Your task to perform on an android device: turn on priority inbox in the gmail app Image 0: 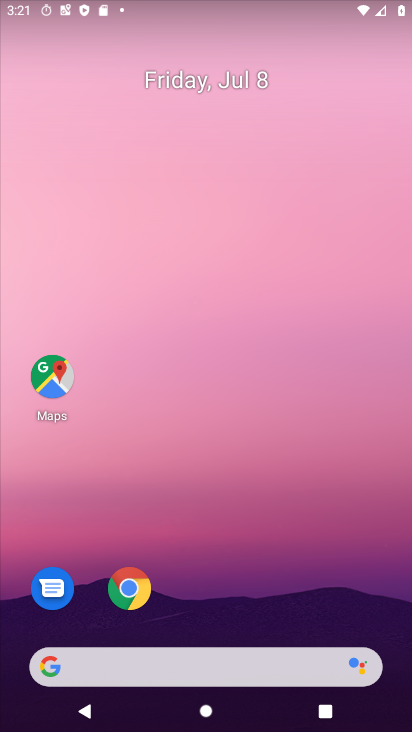
Step 0: press home button
Your task to perform on an android device: turn on priority inbox in the gmail app Image 1: 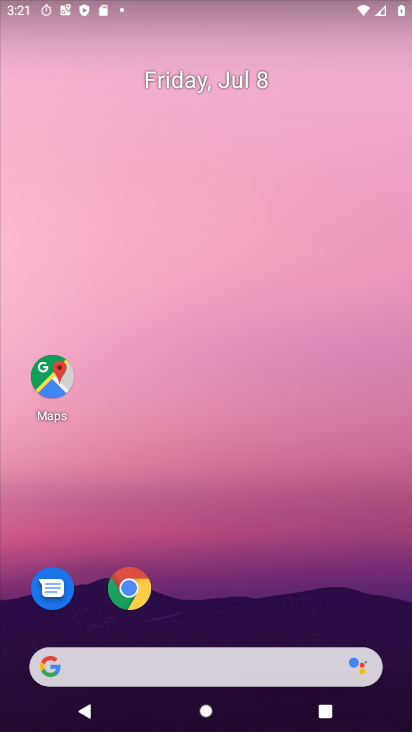
Step 1: drag from (210, 597) to (199, 66)
Your task to perform on an android device: turn on priority inbox in the gmail app Image 2: 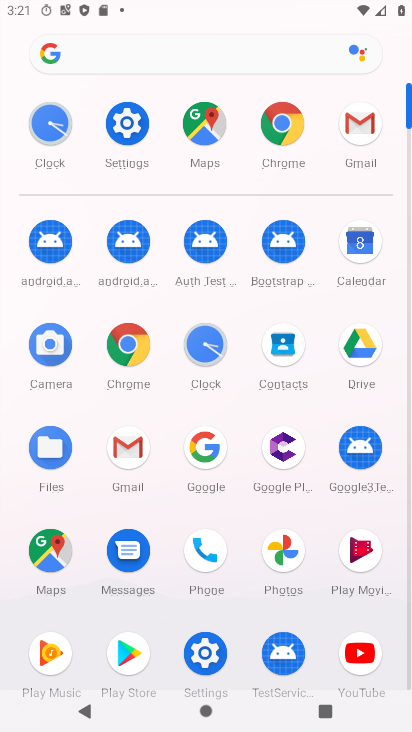
Step 2: click (360, 133)
Your task to perform on an android device: turn on priority inbox in the gmail app Image 3: 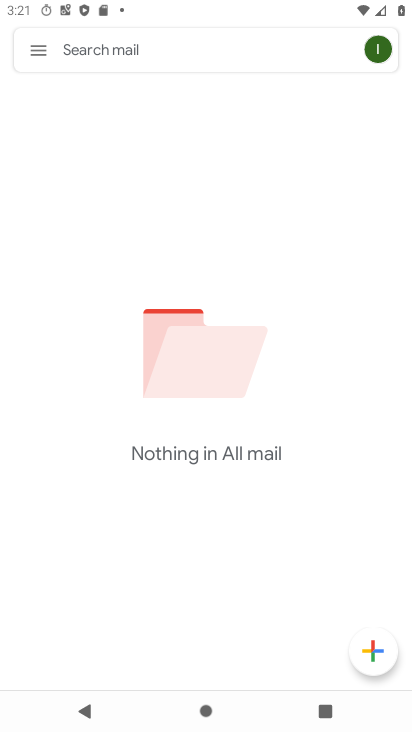
Step 3: click (37, 62)
Your task to perform on an android device: turn on priority inbox in the gmail app Image 4: 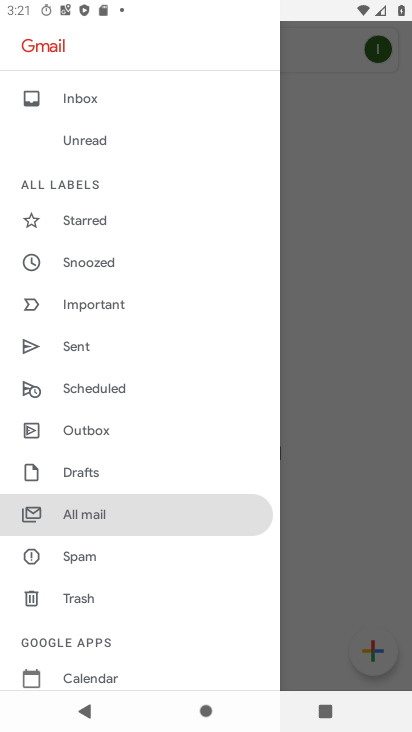
Step 4: drag from (186, 610) to (182, 243)
Your task to perform on an android device: turn on priority inbox in the gmail app Image 5: 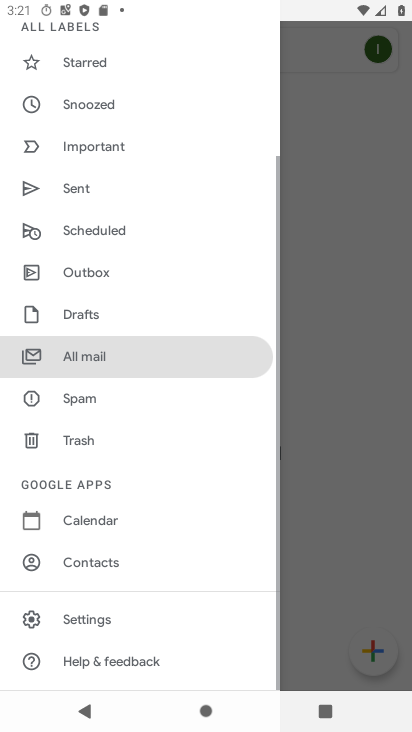
Step 5: click (95, 617)
Your task to perform on an android device: turn on priority inbox in the gmail app Image 6: 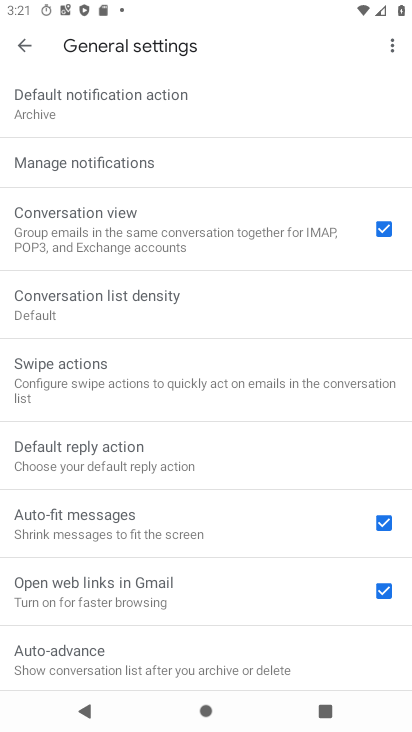
Step 6: press back button
Your task to perform on an android device: turn on priority inbox in the gmail app Image 7: 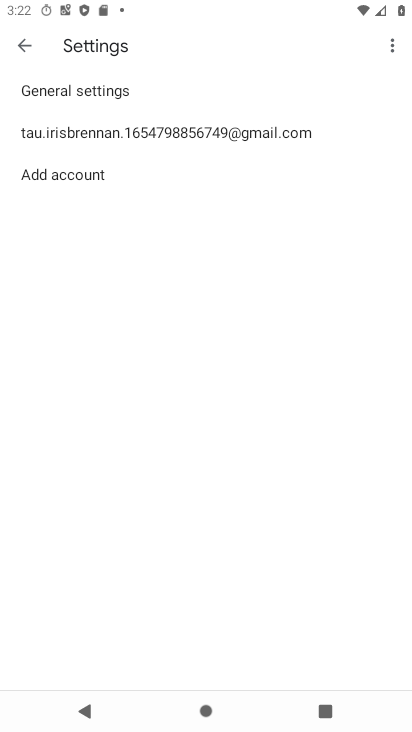
Step 7: click (166, 124)
Your task to perform on an android device: turn on priority inbox in the gmail app Image 8: 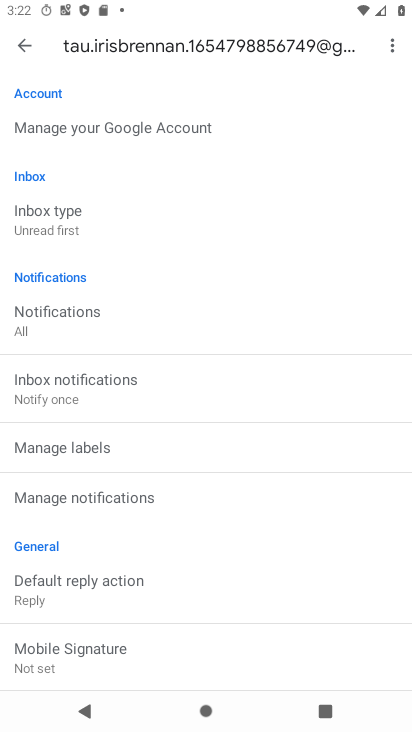
Step 8: click (57, 220)
Your task to perform on an android device: turn on priority inbox in the gmail app Image 9: 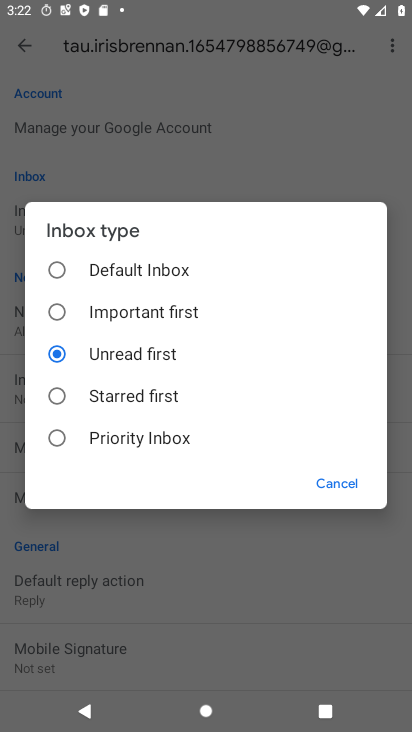
Step 9: click (57, 450)
Your task to perform on an android device: turn on priority inbox in the gmail app Image 10: 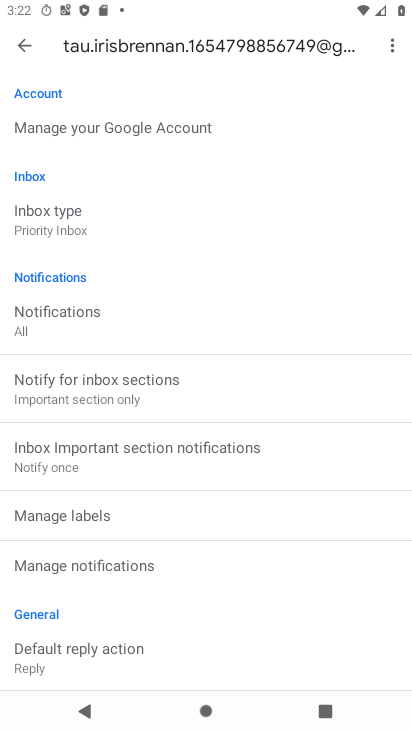
Step 10: task complete